Your task to perform on an android device: Open Youtube and go to the subscriptions tab Image 0: 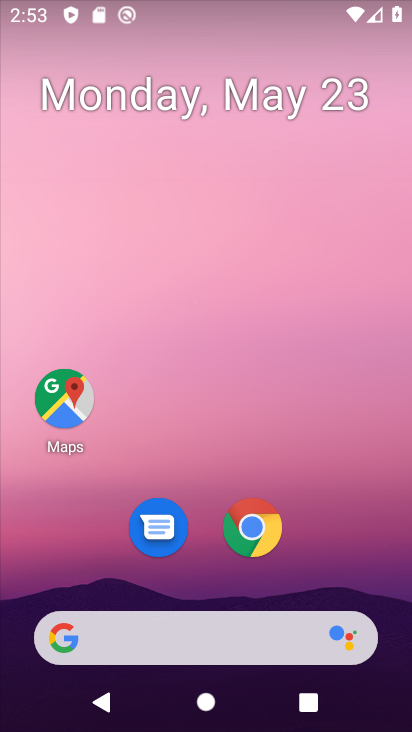
Step 0: press home button
Your task to perform on an android device: Open Youtube and go to the subscriptions tab Image 1: 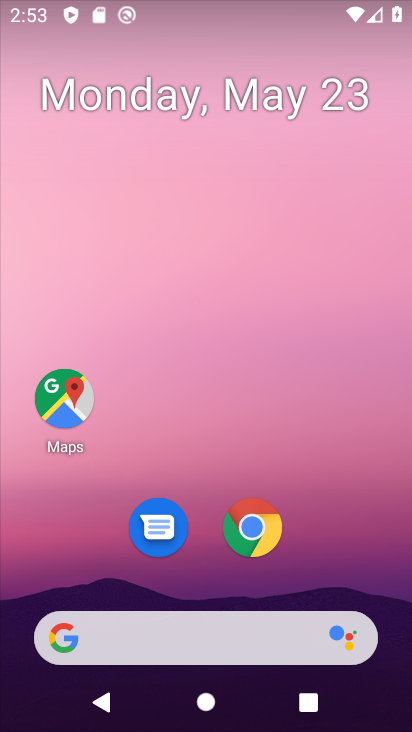
Step 1: drag from (258, 676) to (360, 173)
Your task to perform on an android device: Open Youtube and go to the subscriptions tab Image 2: 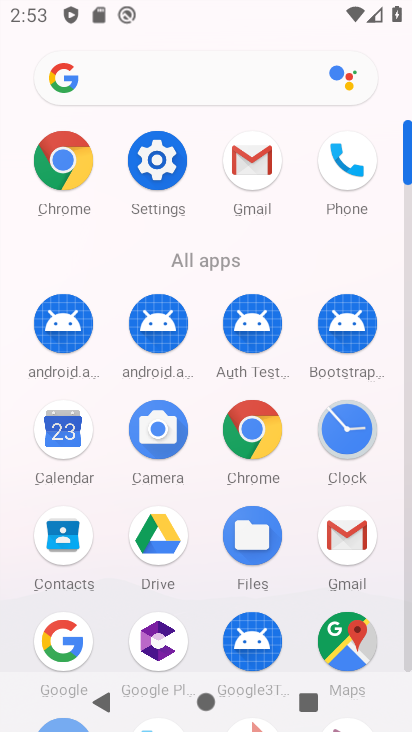
Step 2: drag from (197, 582) to (149, 298)
Your task to perform on an android device: Open Youtube and go to the subscriptions tab Image 3: 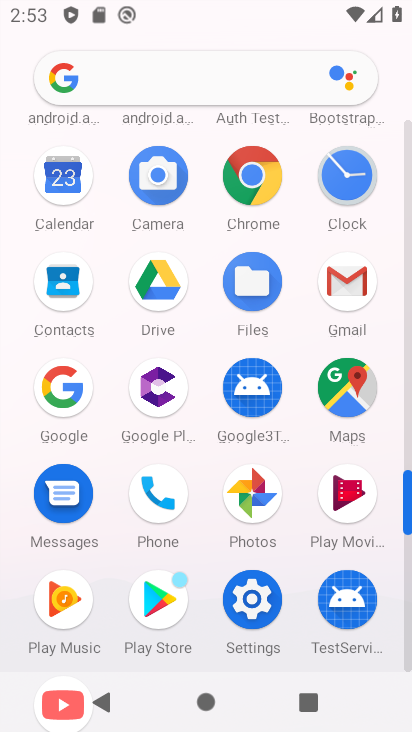
Step 3: click (96, 438)
Your task to perform on an android device: Open Youtube and go to the subscriptions tab Image 4: 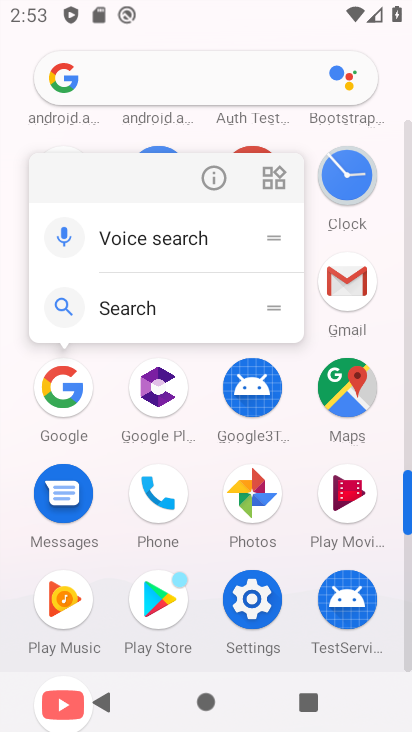
Step 4: drag from (106, 462) to (90, 338)
Your task to perform on an android device: Open Youtube and go to the subscriptions tab Image 5: 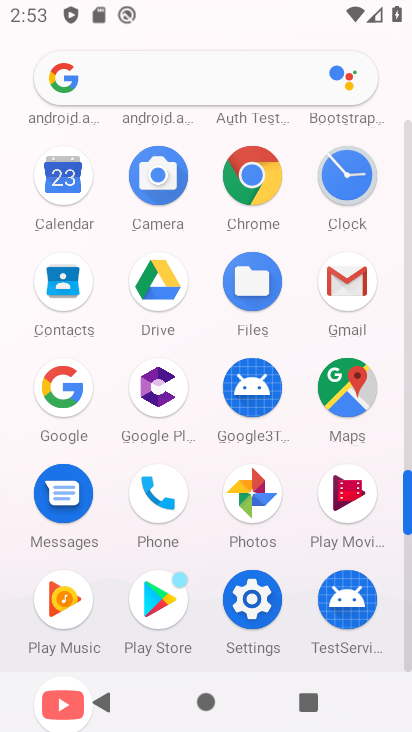
Step 5: drag from (115, 345) to (102, 252)
Your task to perform on an android device: Open Youtube and go to the subscriptions tab Image 6: 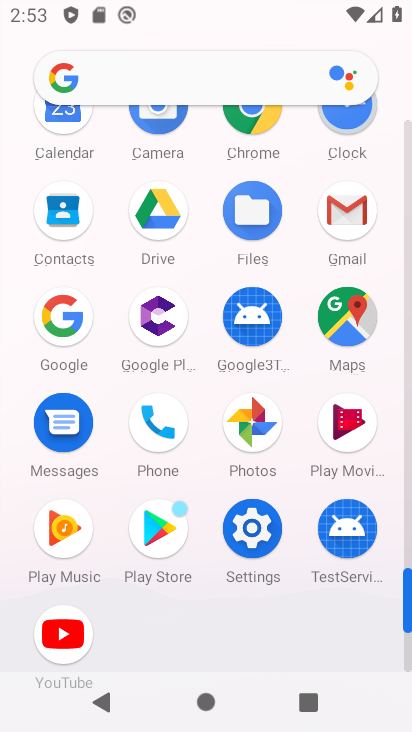
Step 6: click (72, 645)
Your task to perform on an android device: Open Youtube and go to the subscriptions tab Image 7: 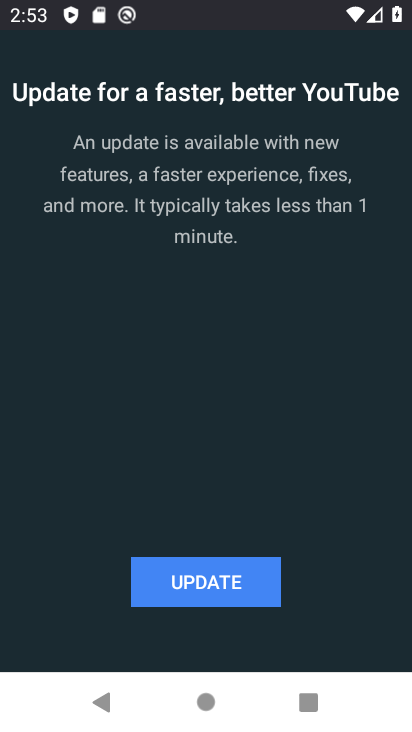
Step 7: click (199, 577)
Your task to perform on an android device: Open Youtube and go to the subscriptions tab Image 8: 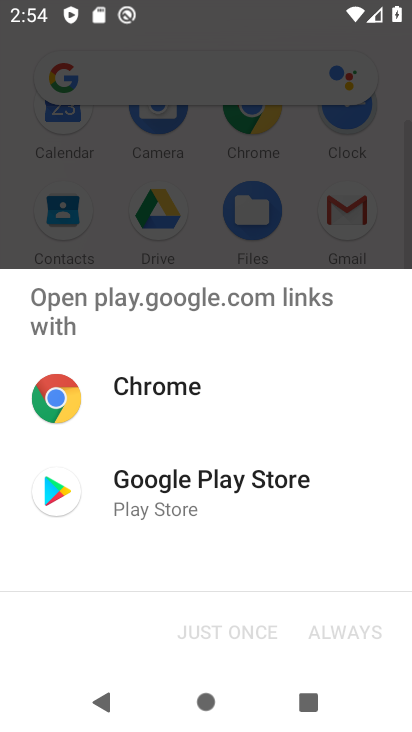
Step 8: click (135, 463)
Your task to perform on an android device: Open Youtube and go to the subscriptions tab Image 9: 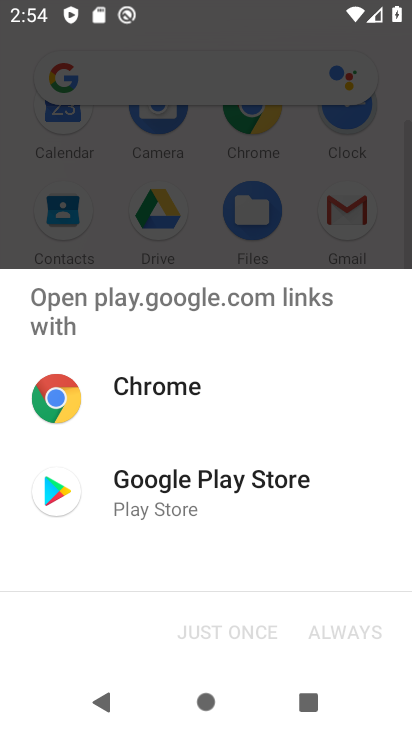
Step 9: click (159, 524)
Your task to perform on an android device: Open Youtube and go to the subscriptions tab Image 10: 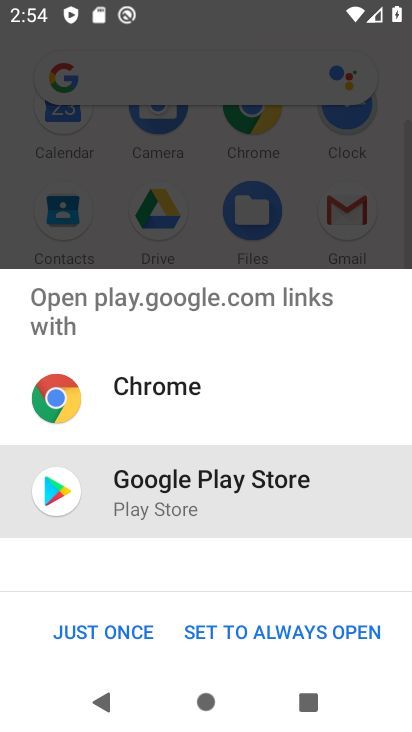
Step 10: click (89, 625)
Your task to perform on an android device: Open Youtube and go to the subscriptions tab Image 11: 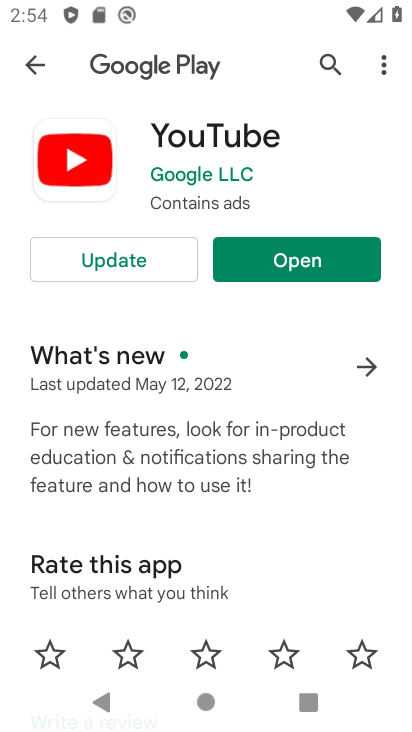
Step 11: click (177, 263)
Your task to perform on an android device: Open Youtube and go to the subscriptions tab Image 12: 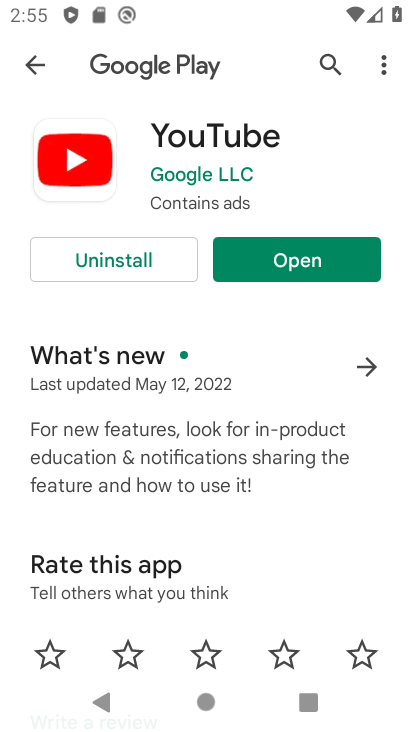
Step 12: click (310, 254)
Your task to perform on an android device: Open Youtube and go to the subscriptions tab Image 13: 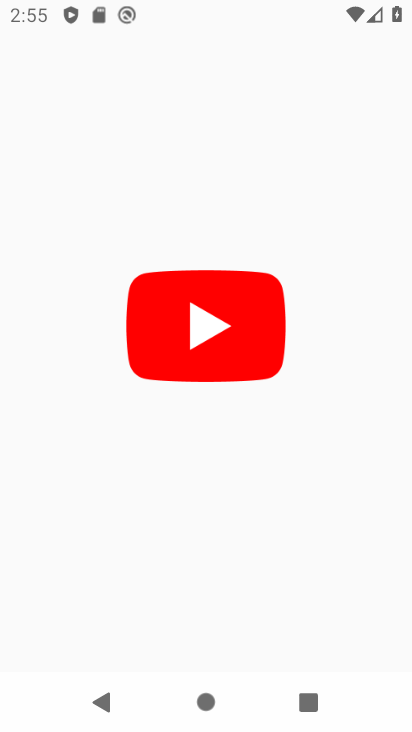
Step 13: click (247, 263)
Your task to perform on an android device: Open Youtube and go to the subscriptions tab Image 14: 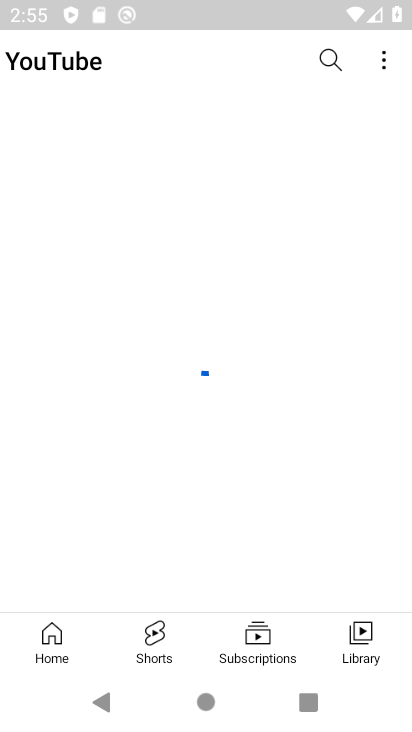
Step 14: click (267, 652)
Your task to perform on an android device: Open Youtube and go to the subscriptions tab Image 15: 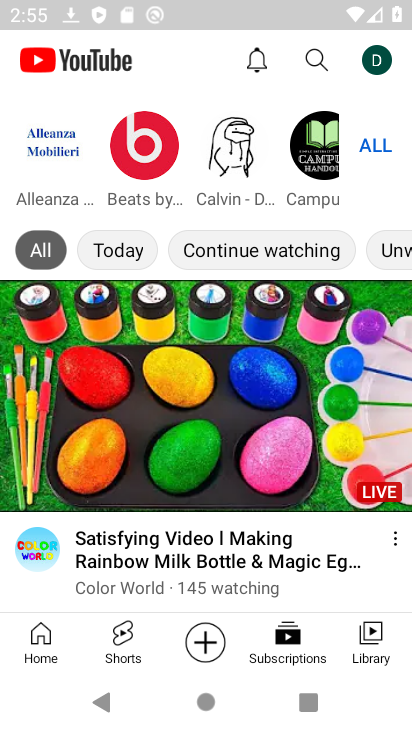
Step 15: task complete